Your task to perform on an android device: Open the phone app and click the voicemail tab. Image 0: 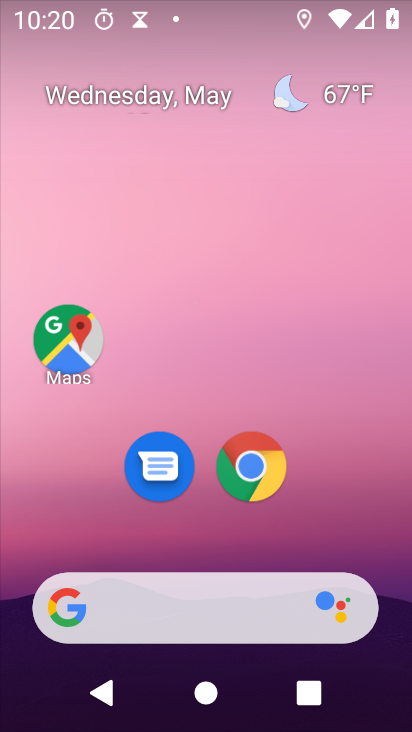
Step 0: drag from (286, 508) to (232, 83)
Your task to perform on an android device: Open the phone app and click the voicemail tab. Image 1: 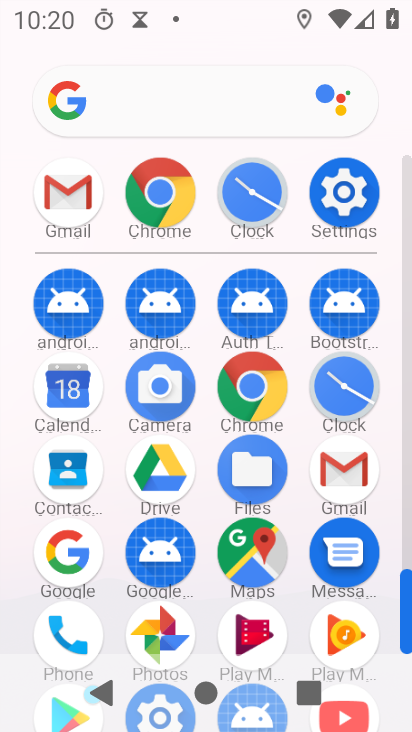
Step 1: click (73, 648)
Your task to perform on an android device: Open the phone app and click the voicemail tab. Image 2: 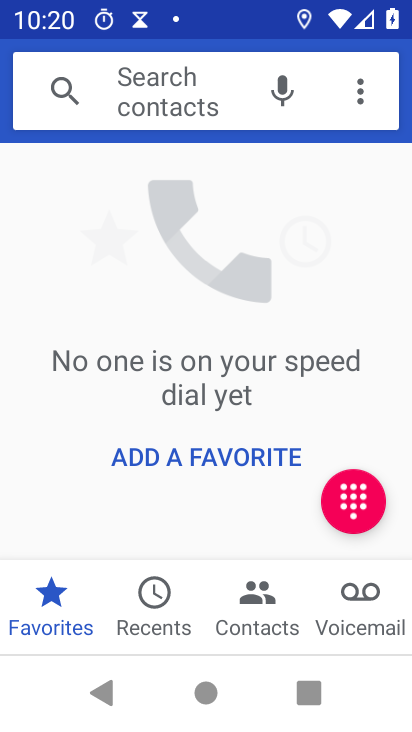
Step 2: click (345, 611)
Your task to perform on an android device: Open the phone app and click the voicemail tab. Image 3: 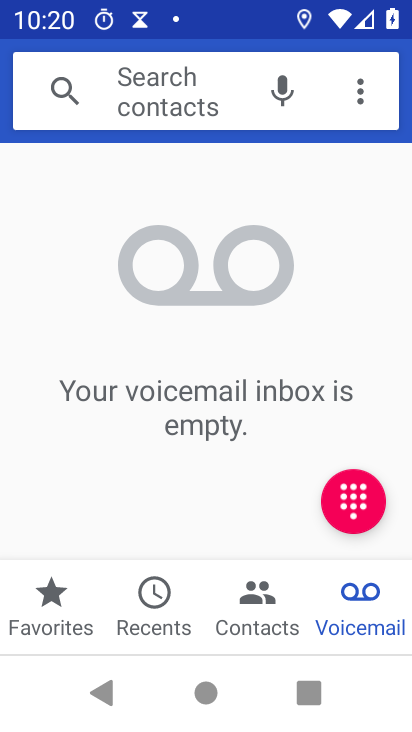
Step 3: task complete